Your task to perform on an android device: Check the weather Image 0: 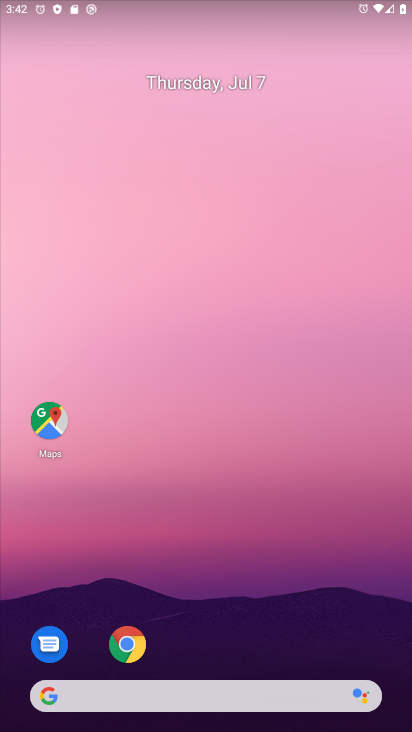
Step 0: click (113, 641)
Your task to perform on an android device: Check the weather Image 1: 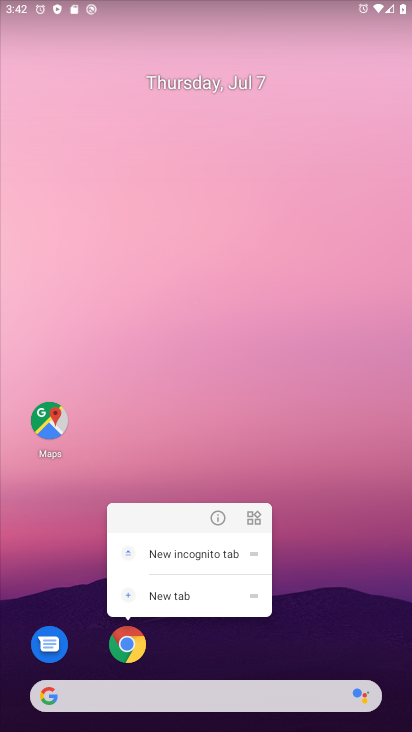
Step 1: click (113, 641)
Your task to perform on an android device: Check the weather Image 2: 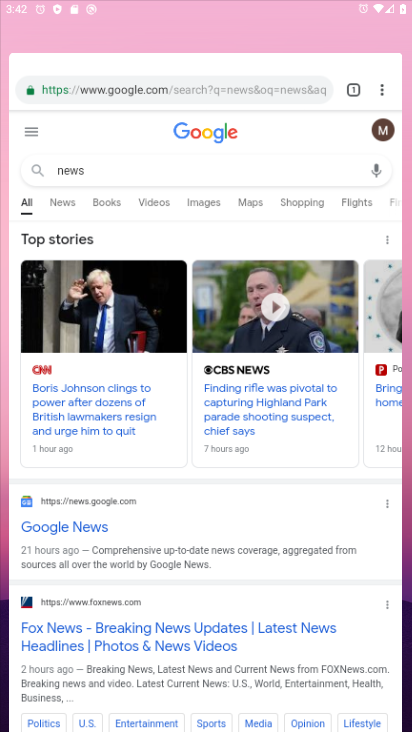
Step 2: click (113, 641)
Your task to perform on an android device: Check the weather Image 3: 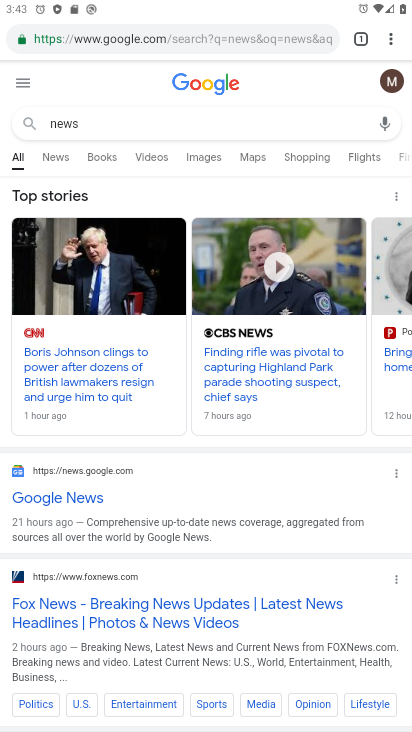
Step 3: click (161, 38)
Your task to perform on an android device: Check the weather Image 4: 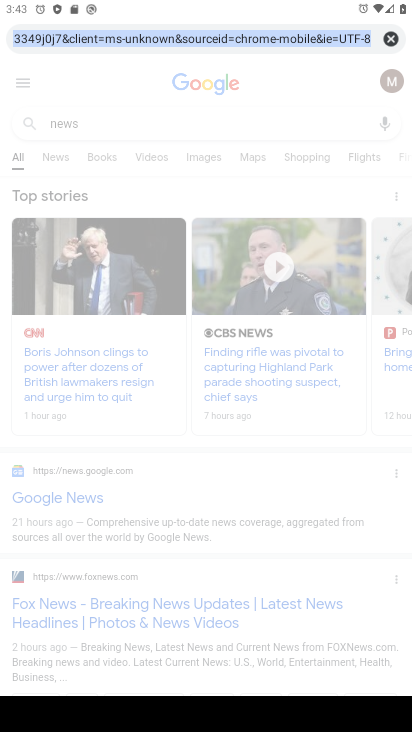
Step 4: type "weather"
Your task to perform on an android device: Check the weather Image 5: 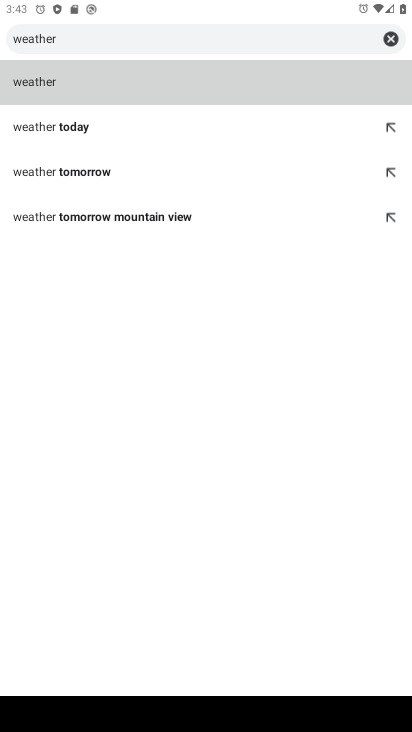
Step 5: click (278, 85)
Your task to perform on an android device: Check the weather Image 6: 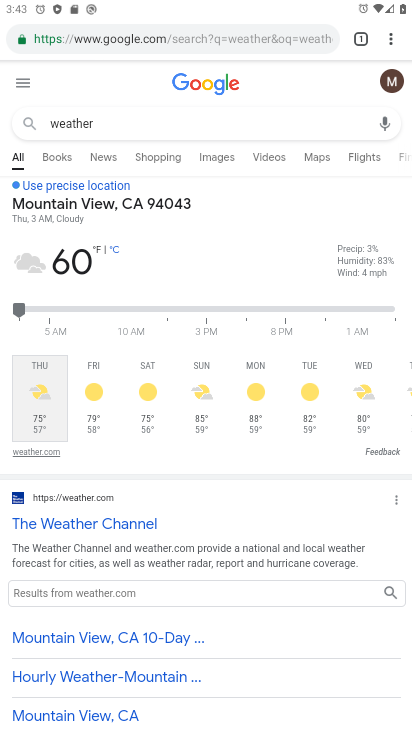
Step 6: task complete